Your task to perform on an android device: refresh tabs in the chrome app Image 0: 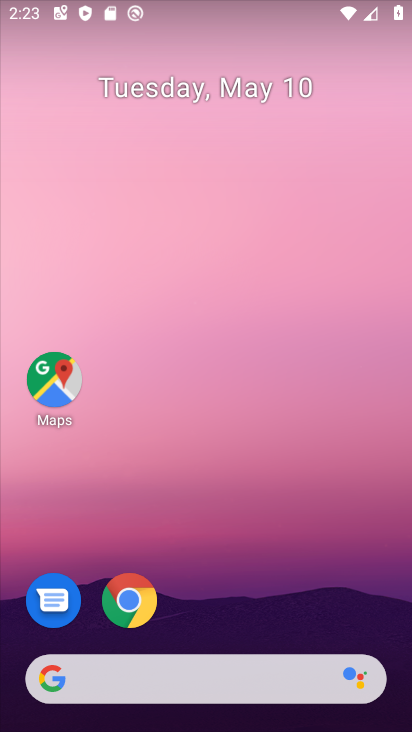
Step 0: click (122, 597)
Your task to perform on an android device: refresh tabs in the chrome app Image 1: 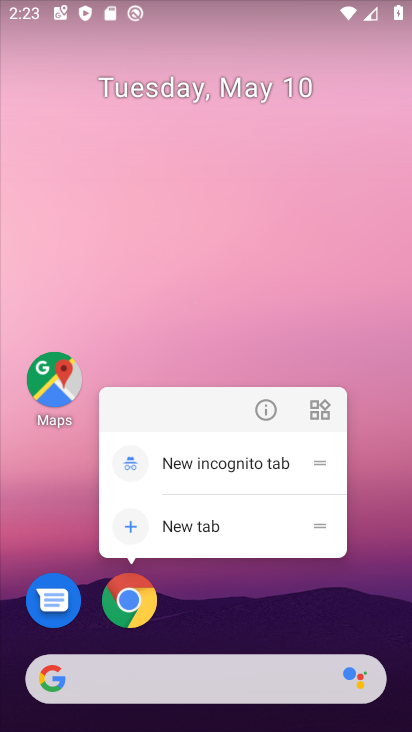
Step 1: click (126, 610)
Your task to perform on an android device: refresh tabs in the chrome app Image 2: 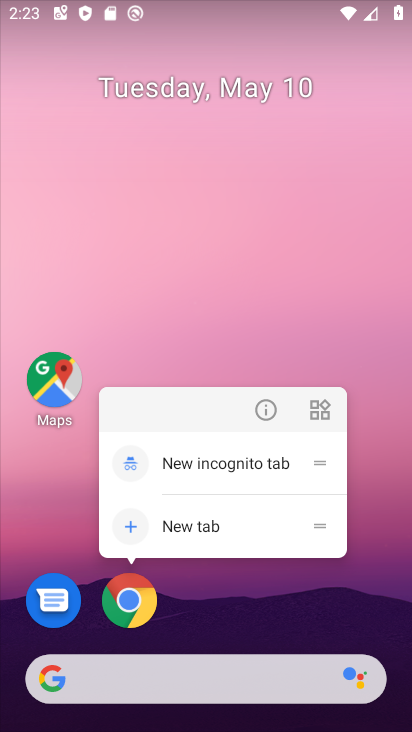
Step 2: click (127, 612)
Your task to perform on an android device: refresh tabs in the chrome app Image 3: 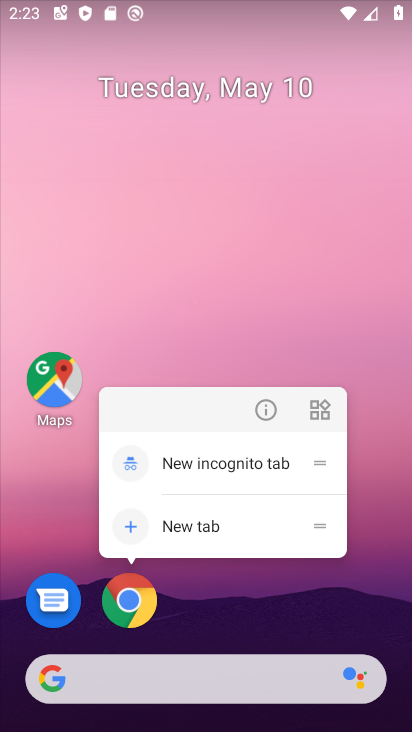
Step 3: click (127, 624)
Your task to perform on an android device: refresh tabs in the chrome app Image 4: 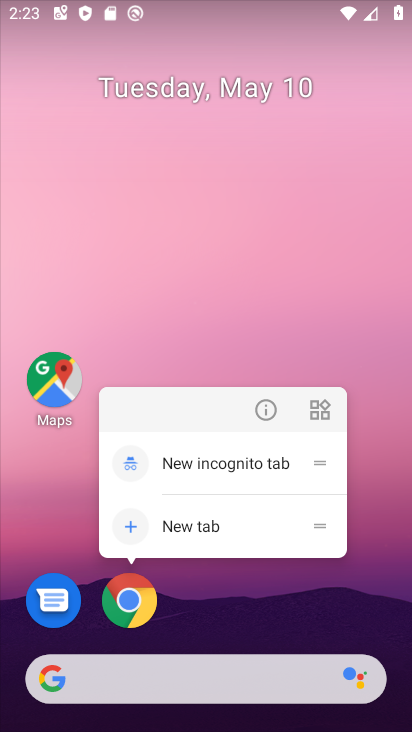
Step 4: click (135, 597)
Your task to perform on an android device: refresh tabs in the chrome app Image 5: 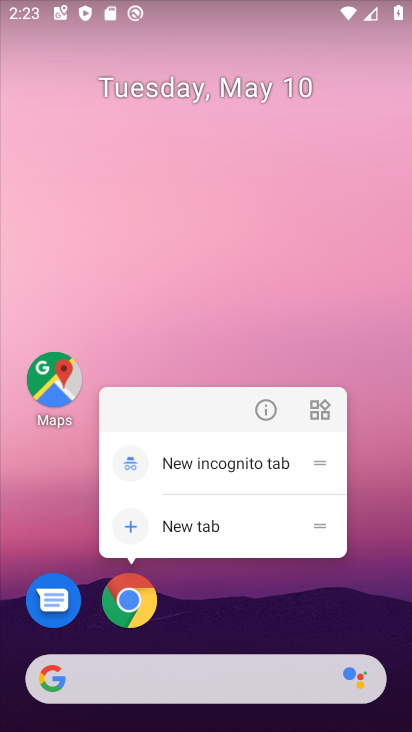
Step 5: click (136, 610)
Your task to perform on an android device: refresh tabs in the chrome app Image 6: 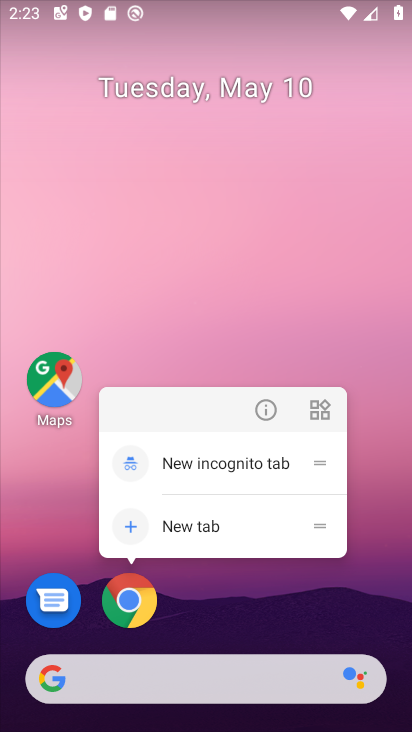
Step 6: click (136, 612)
Your task to perform on an android device: refresh tabs in the chrome app Image 7: 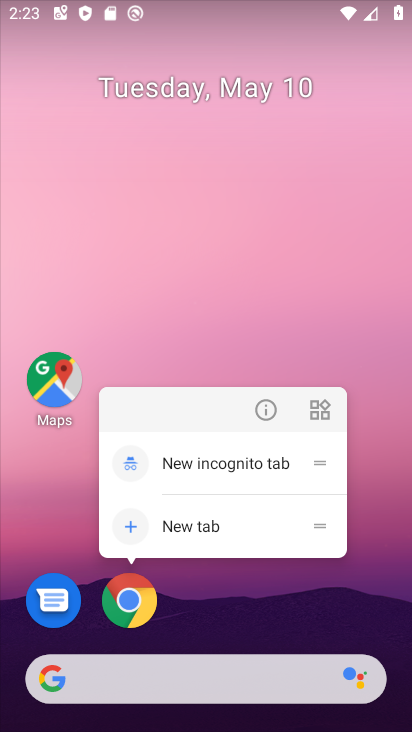
Step 7: click (136, 612)
Your task to perform on an android device: refresh tabs in the chrome app Image 8: 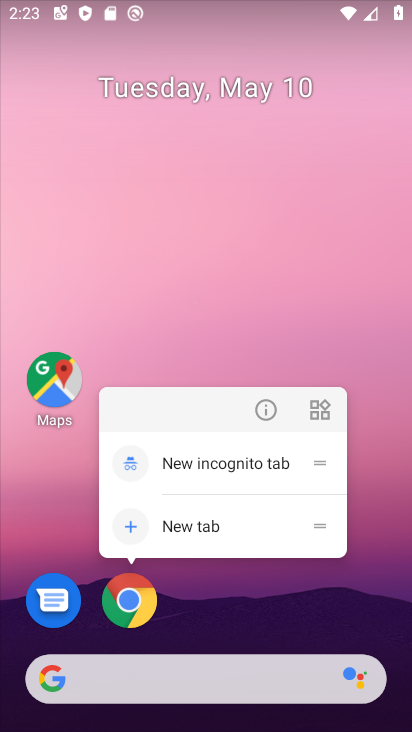
Step 8: click (136, 612)
Your task to perform on an android device: refresh tabs in the chrome app Image 9: 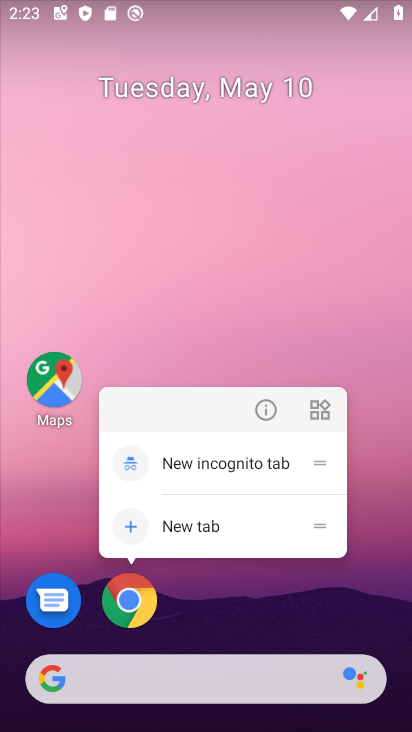
Step 9: click (132, 618)
Your task to perform on an android device: refresh tabs in the chrome app Image 10: 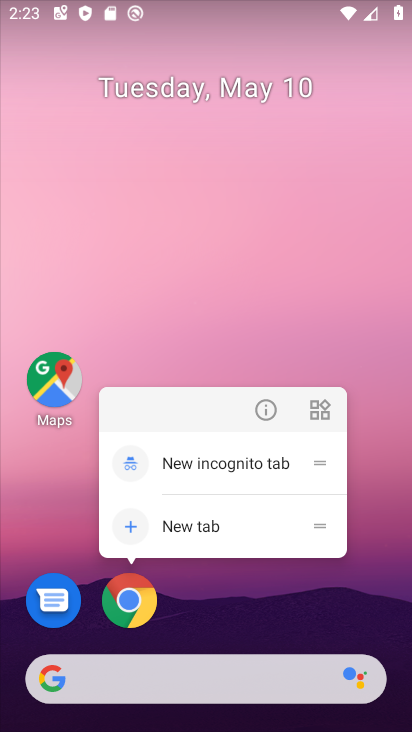
Step 10: click (120, 597)
Your task to perform on an android device: refresh tabs in the chrome app Image 11: 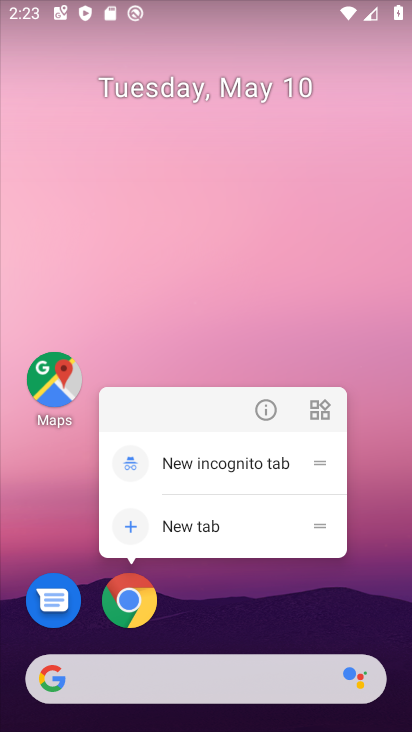
Step 11: click (120, 623)
Your task to perform on an android device: refresh tabs in the chrome app Image 12: 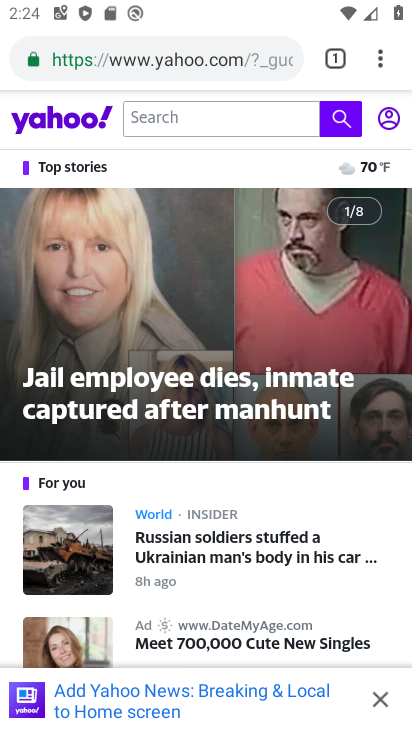
Step 12: click (369, 60)
Your task to perform on an android device: refresh tabs in the chrome app Image 13: 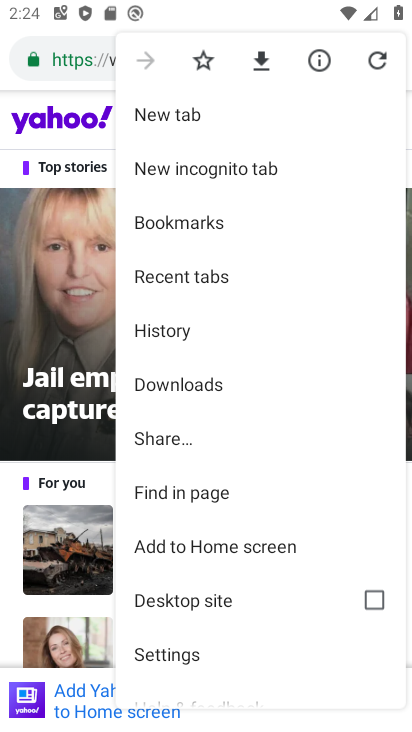
Step 13: click (382, 63)
Your task to perform on an android device: refresh tabs in the chrome app Image 14: 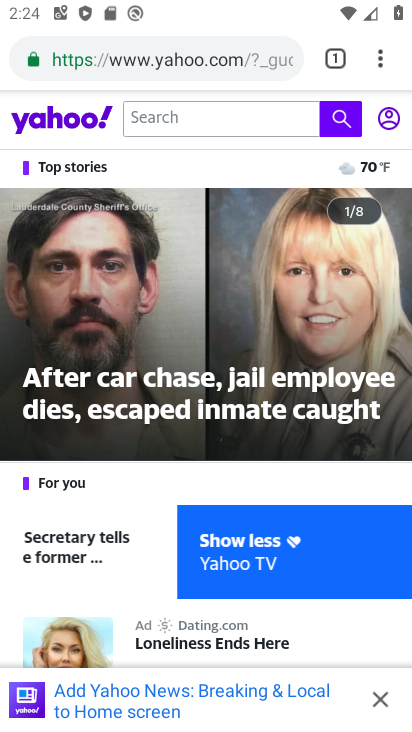
Step 14: task complete